Your task to perform on an android device: Open the phone app and click the voicemail tab. Image 0: 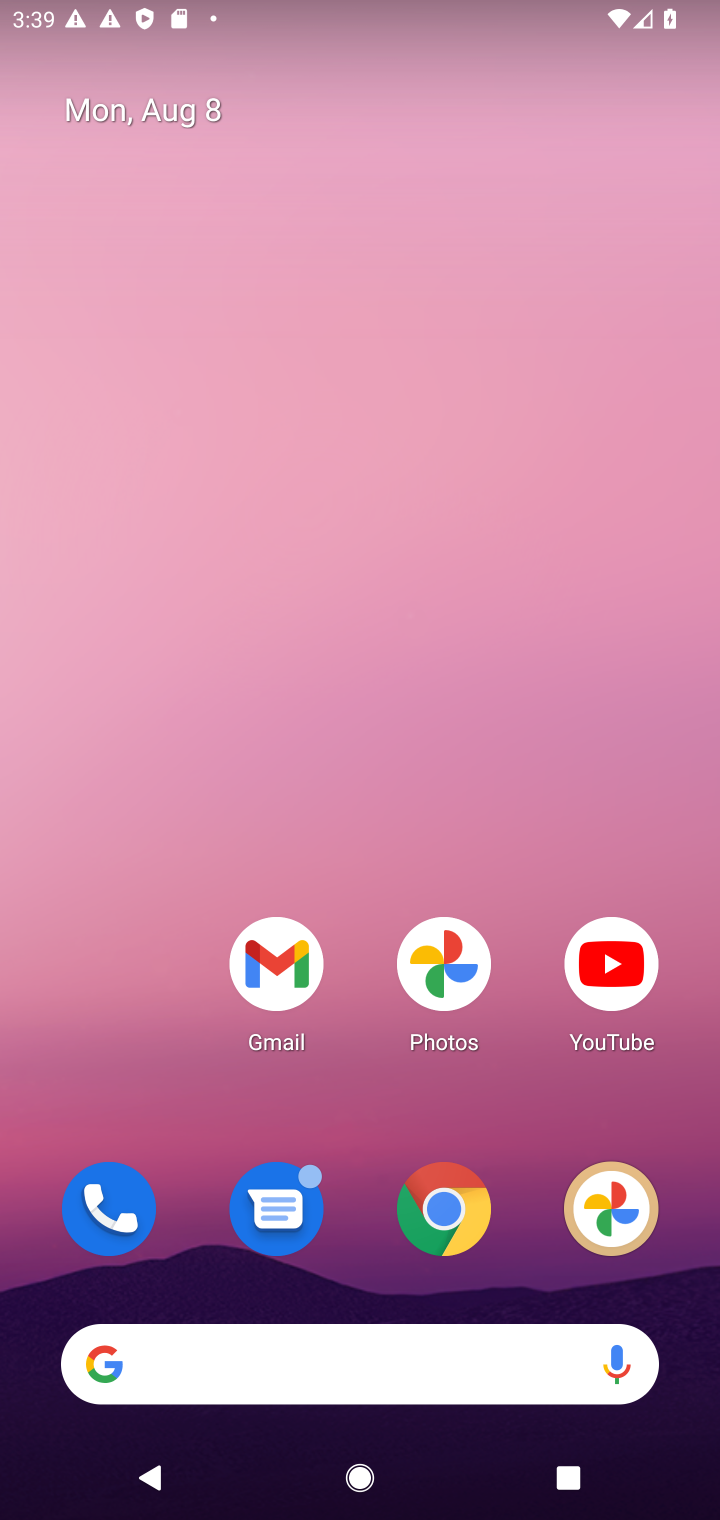
Step 0: click (139, 1202)
Your task to perform on an android device: Open the phone app and click the voicemail tab. Image 1: 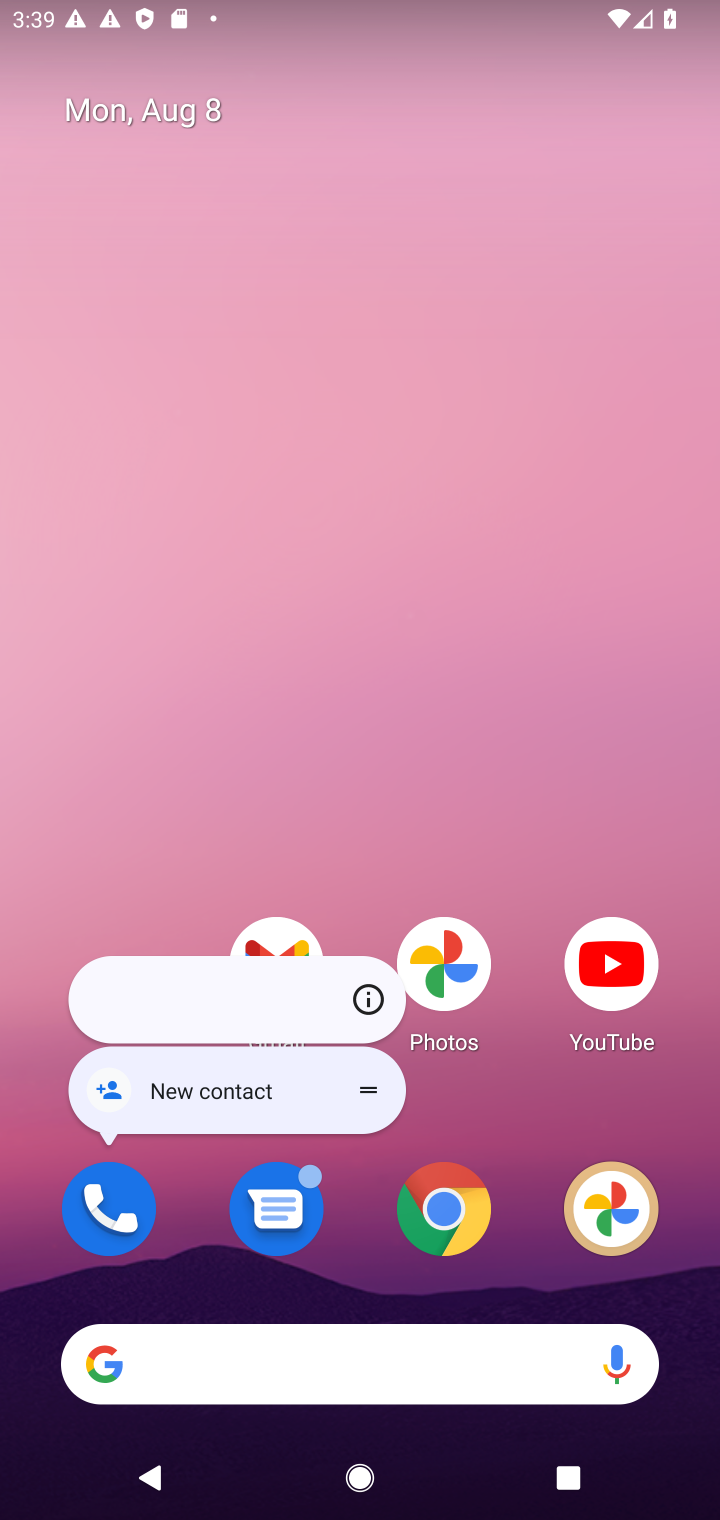
Step 1: click (120, 1204)
Your task to perform on an android device: Open the phone app and click the voicemail tab. Image 2: 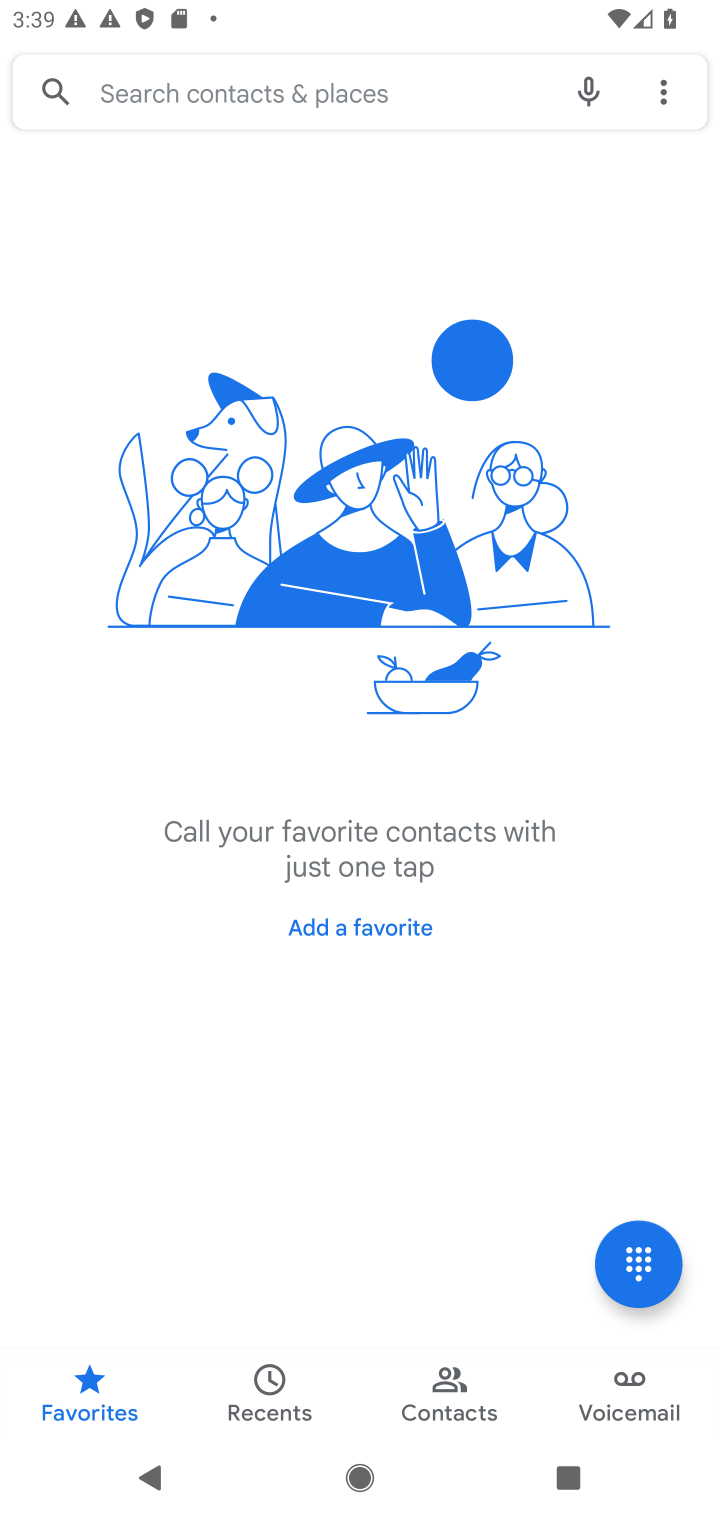
Step 2: click (645, 1380)
Your task to perform on an android device: Open the phone app and click the voicemail tab. Image 3: 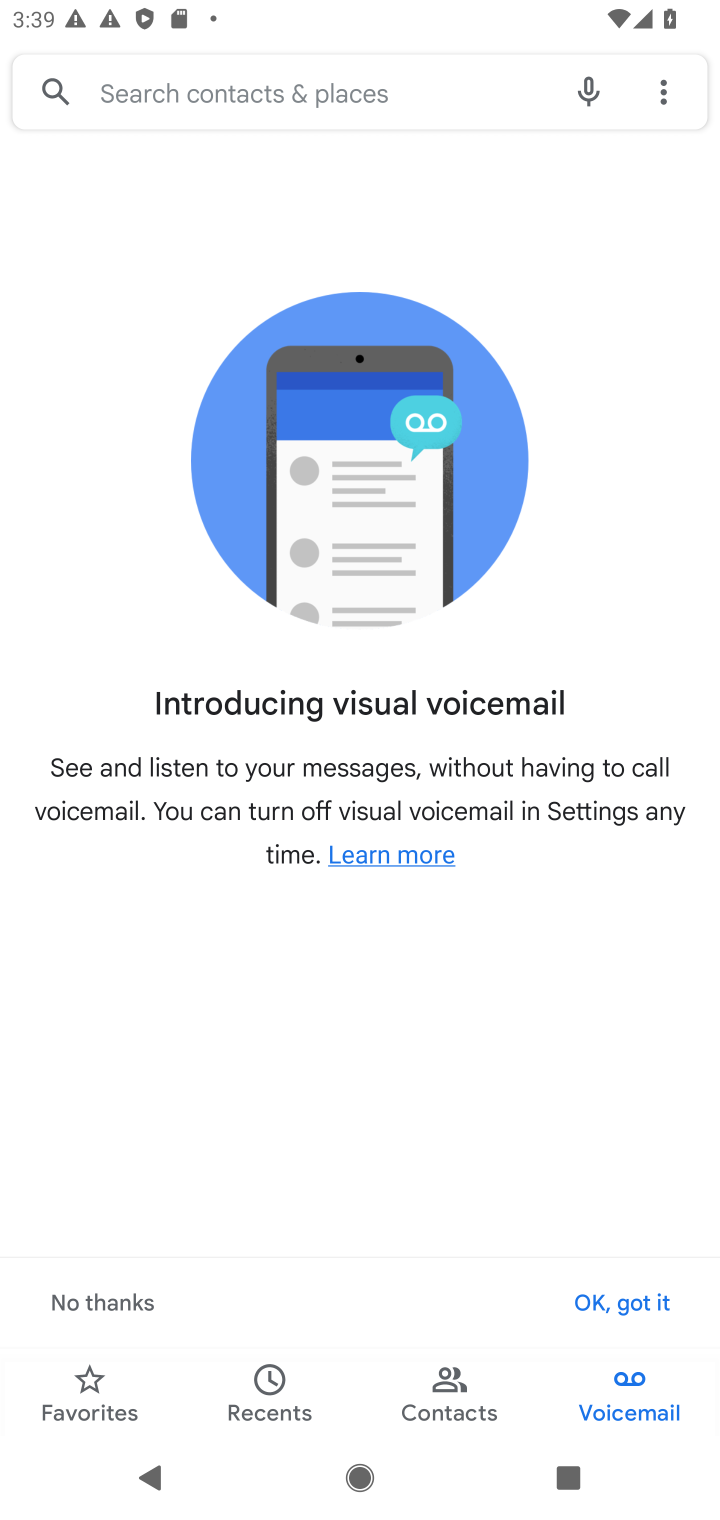
Step 3: task complete